Your task to perform on an android device: Open calendar and show me the second week of next month Image 0: 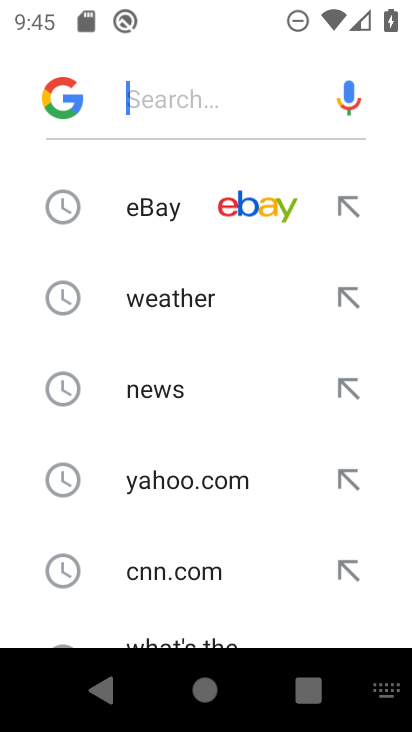
Step 0: press home button
Your task to perform on an android device: Open calendar and show me the second week of next month Image 1: 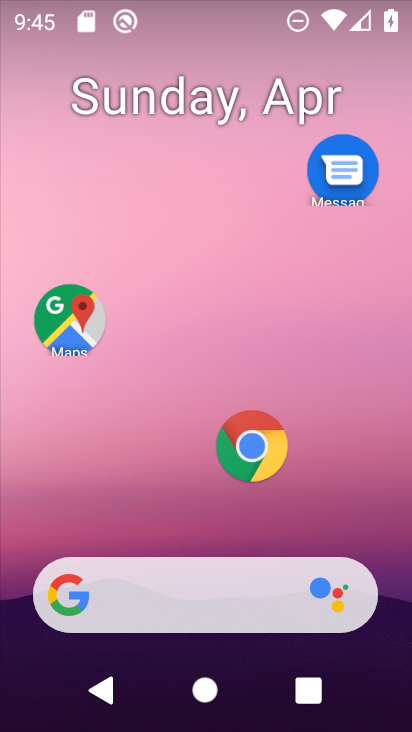
Step 1: click (261, 300)
Your task to perform on an android device: Open calendar and show me the second week of next month Image 2: 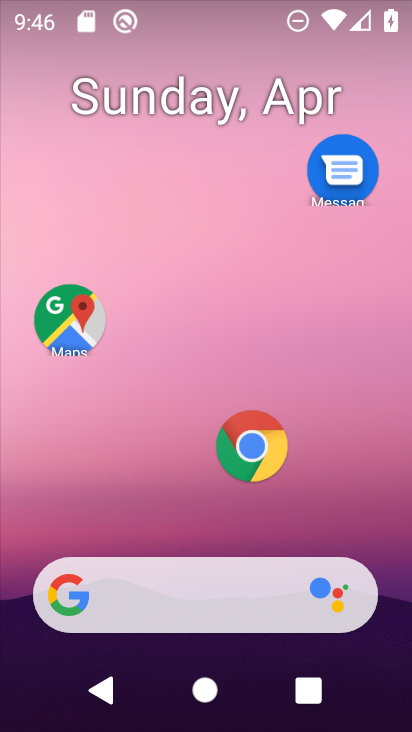
Step 2: drag from (227, 533) to (261, 40)
Your task to perform on an android device: Open calendar and show me the second week of next month Image 3: 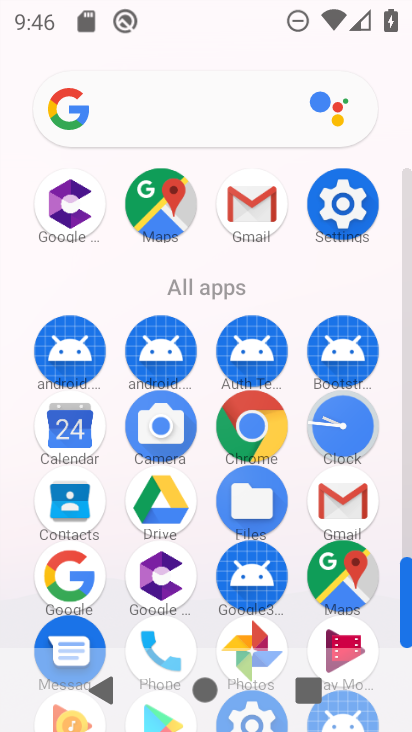
Step 3: click (66, 406)
Your task to perform on an android device: Open calendar and show me the second week of next month Image 4: 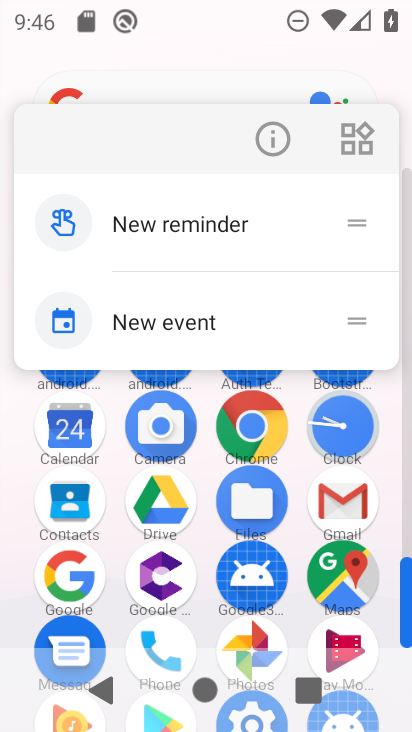
Step 4: click (273, 145)
Your task to perform on an android device: Open calendar and show me the second week of next month Image 5: 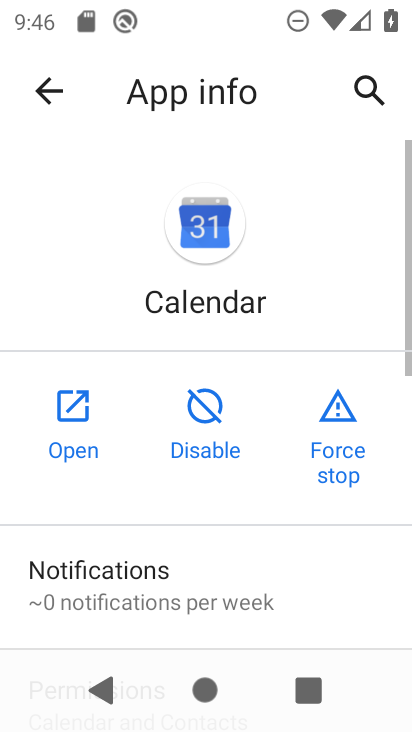
Step 5: click (60, 430)
Your task to perform on an android device: Open calendar and show me the second week of next month Image 6: 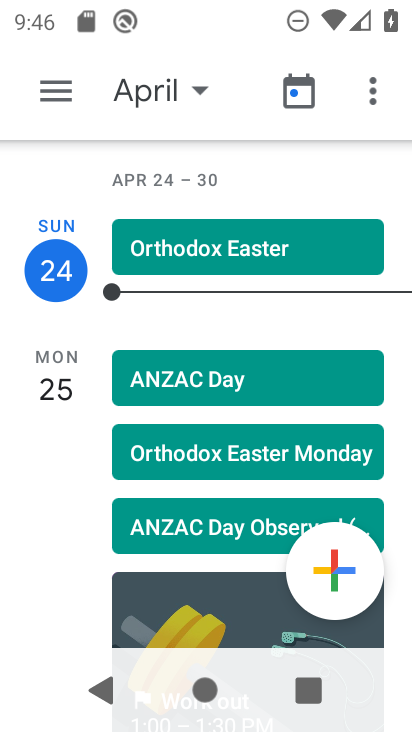
Step 6: click (160, 90)
Your task to perform on an android device: Open calendar and show me the second week of next month Image 7: 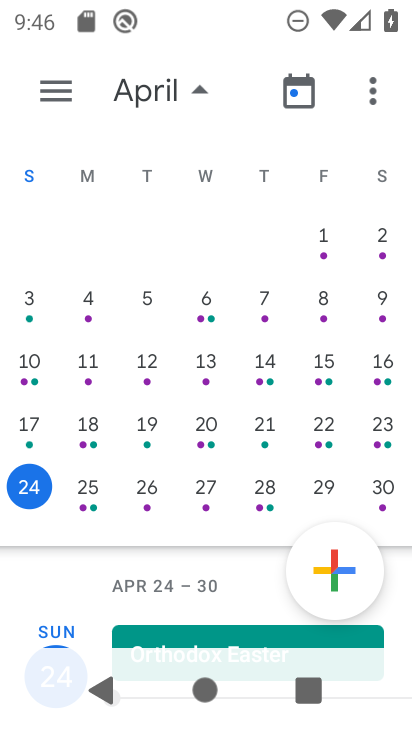
Step 7: drag from (349, 428) to (11, 385)
Your task to perform on an android device: Open calendar and show me the second week of next month Image 8: 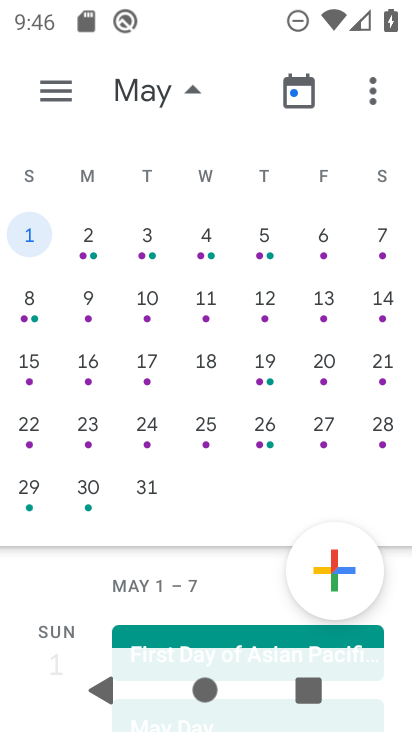
Step 8: click (200, 295)
Your task to perform on an android device: Open calendar and show me the second week of next month Image 9: 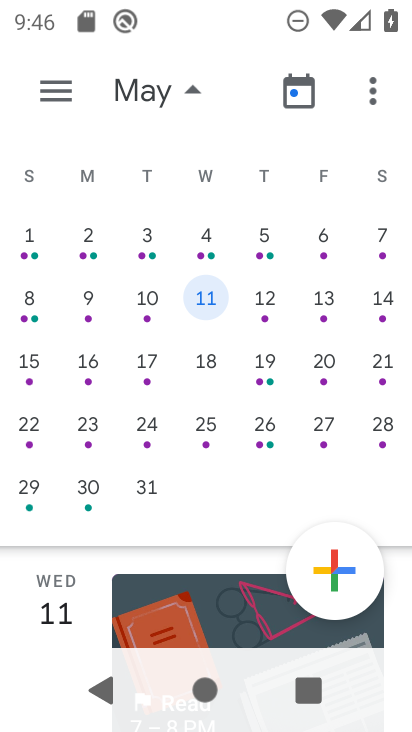
Step 9: task complete